Your task to perform on an android device: empty trash in the gmail app Image 0: 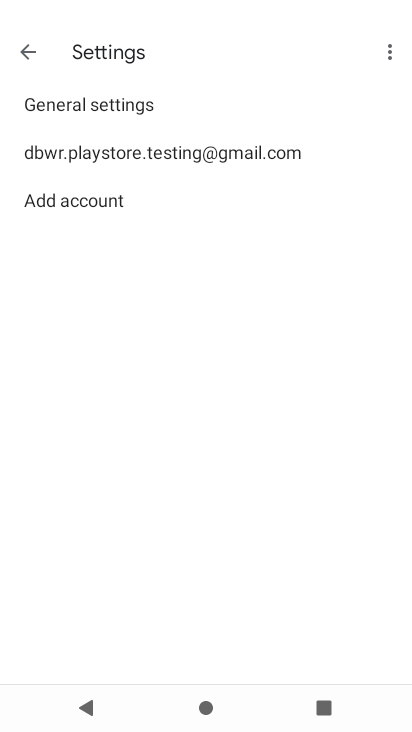
Step 0: press home button
Your task to perform on an android device: empty trash in the gmail app Image 1: 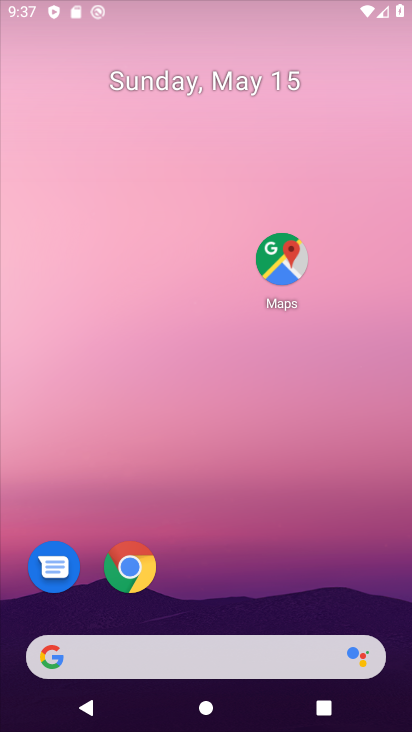
Step 1: drag from (223, 604) to (230, 73)
Your task to perform on an android device: empty trash in the gmail app Image 2: 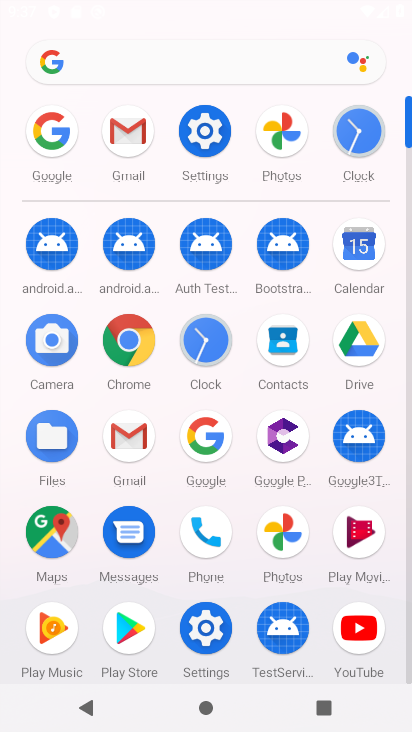
Step 2: click (132, 441)
Your task to perform on an android device: empty trash in the gmail app Image 3: 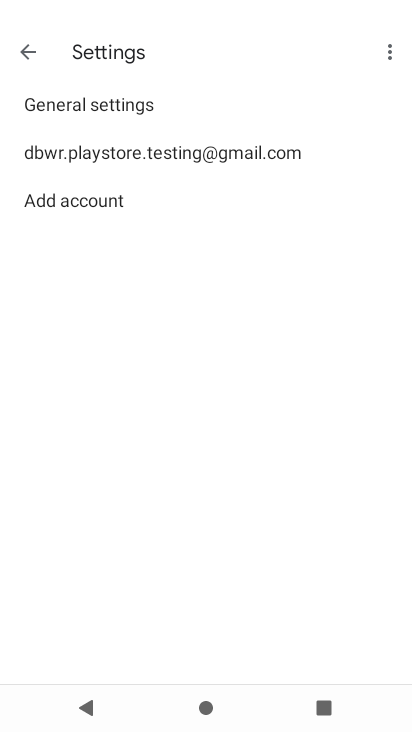
Step 3: press back button
Your task to perform on an android device: empty trash in the gmail app Image 4: 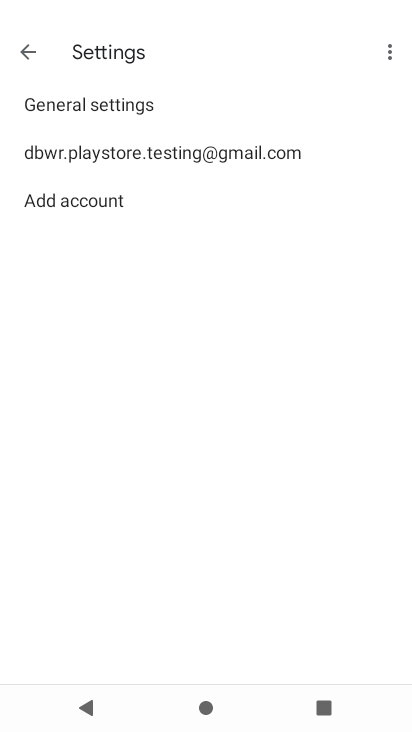
Step 4: press back button
Your task to perform on an android device: empty trash in the gmail app Image 5: 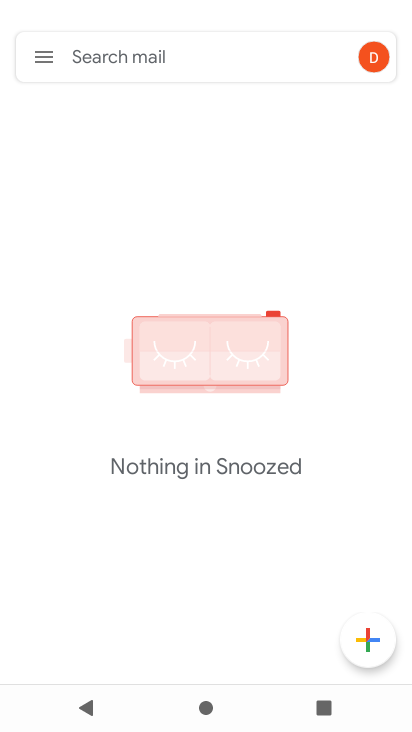
Step 5: click (39, 46)
Your task to perform on an android device: empty trash in the gmail app Image 6: 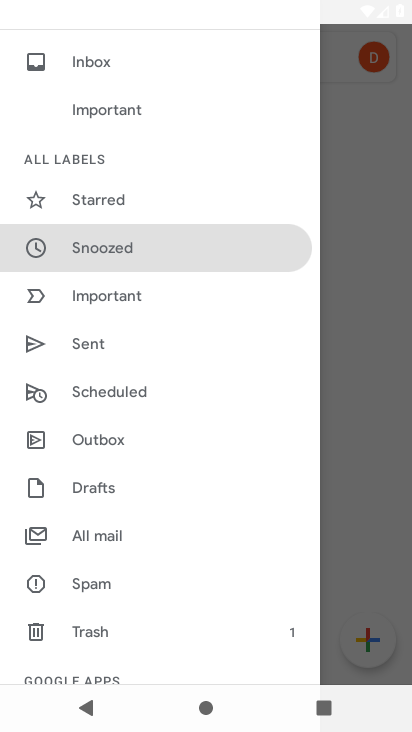
Step 6: click (125, 624)
Your task to perform on an android device: empty trash in the gmail app Image 7: 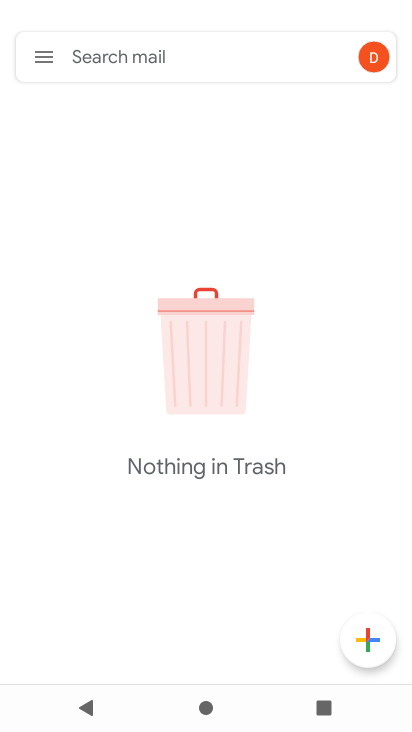
Step 7: task complete